Your task to perform on an android device: Go to settings Image 0: 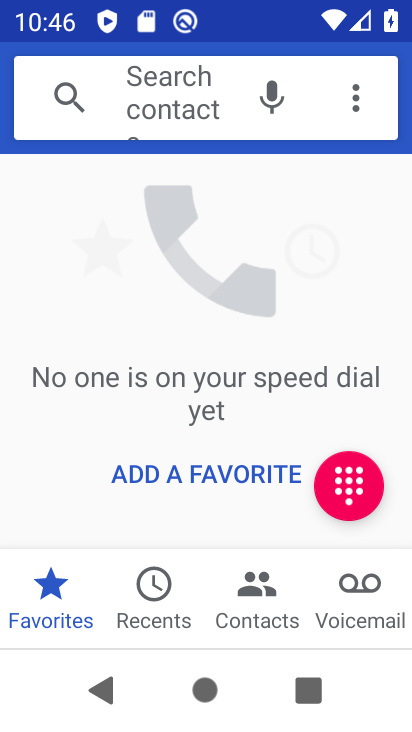
Step 0: press back button
Your task to perform on an android device: Go to settings Image 1: 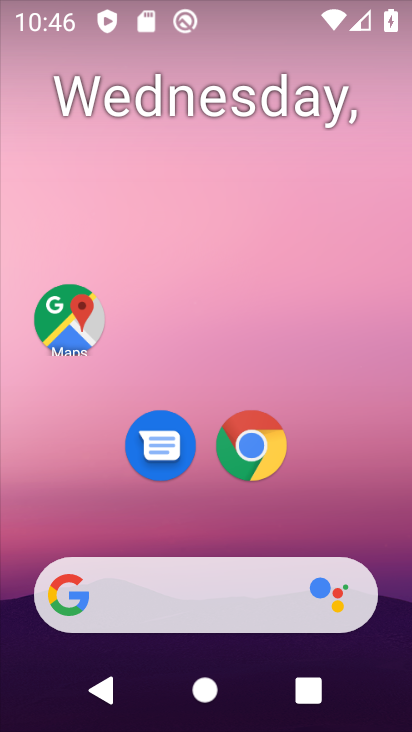
Step 1: drag from (201, 535) to (203, 77)
Your task to perform on an android device: Go to settings Image 2: 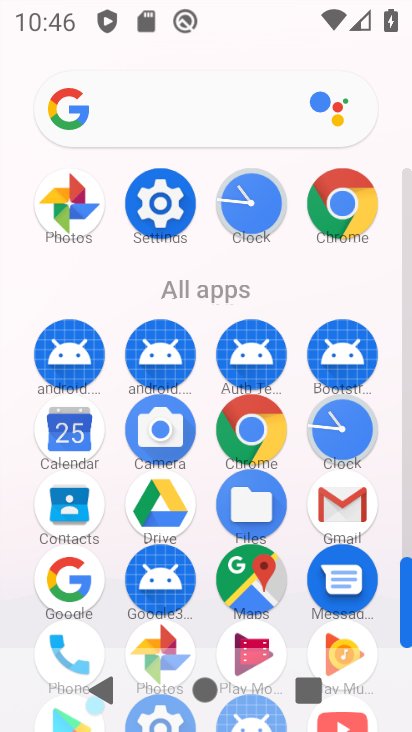
Step 2: click (152, 210)
Your task to perform on an android device: Go to settings Image 3: 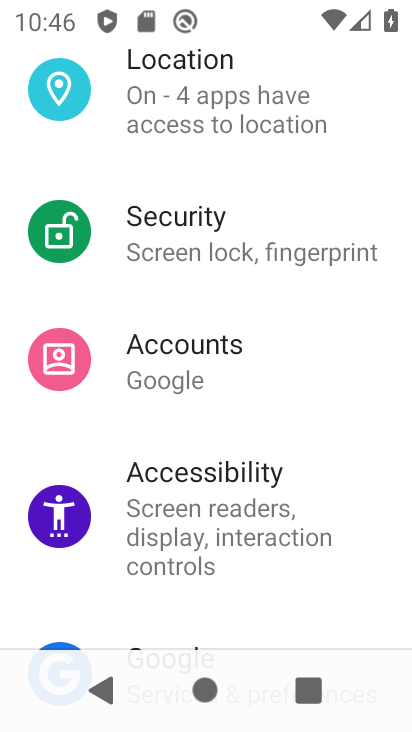
Step 3: task complete